Your task to perform on an android device: clear history in the chrome app Image 0: 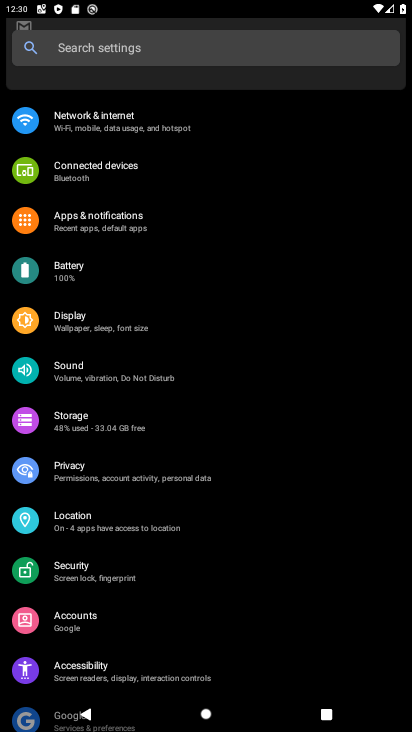
Step 0: press home button
Your task to perform on an android device: clear history in the chrome app Image 1: 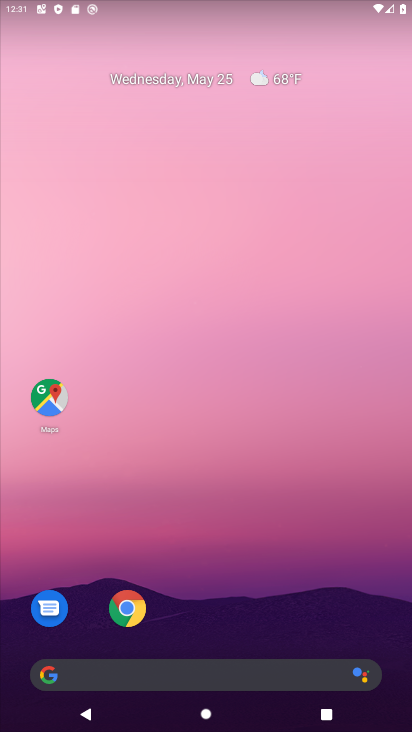
Step 1: click (140, 603)
Your task to perform on an android device: clear history in the chrome app Image 2: 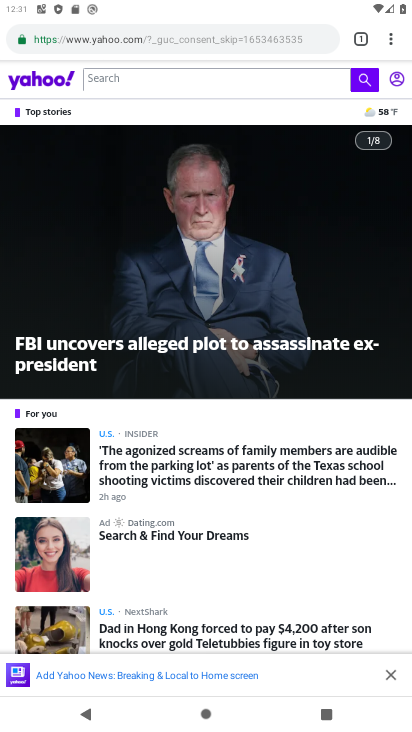
Step 2: click (392, 41)
Your task to perform on an android device: clear history in the chrome app Image 3: 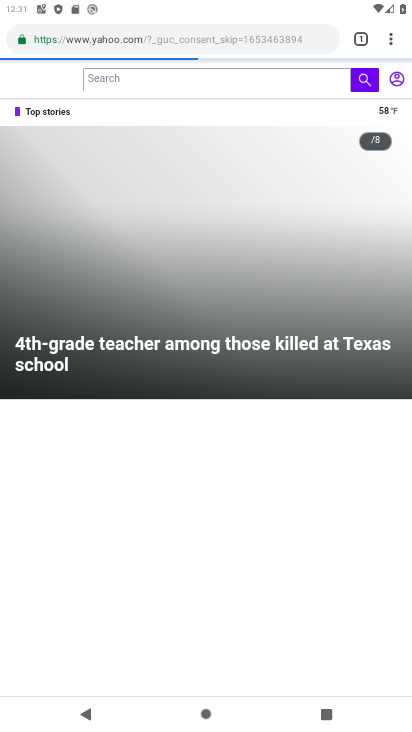
Step 3: click (389, 45)
Your task to perform on an android device: clear history in the chrome app Image 4: 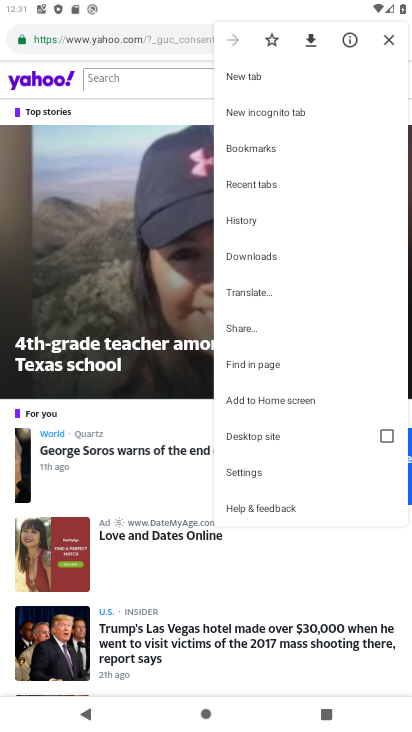
Step 4: click (263, 465)
Your task to perform on an android device: clear history in the chrome app Image 5: 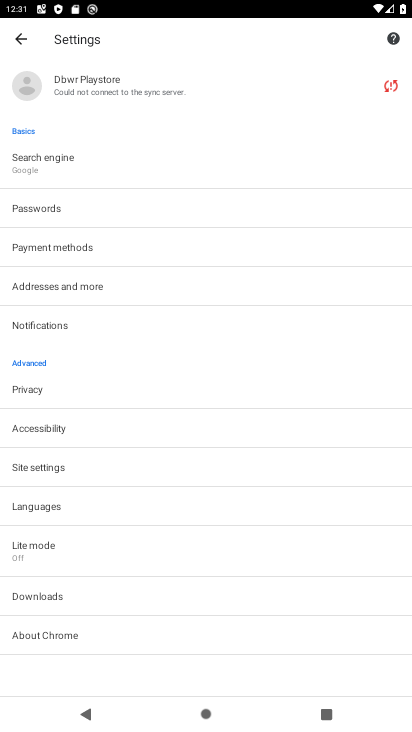
Step 5: click (81, 382)
Your task to perform on an android device: clear history in the chrome app Image 6: 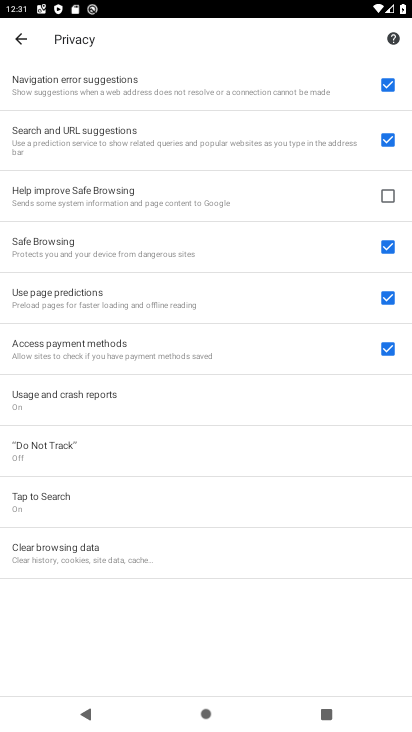
Step 6: click (112, 558)
Your task to perform on an android device: clear history in the chrome app Image 7: 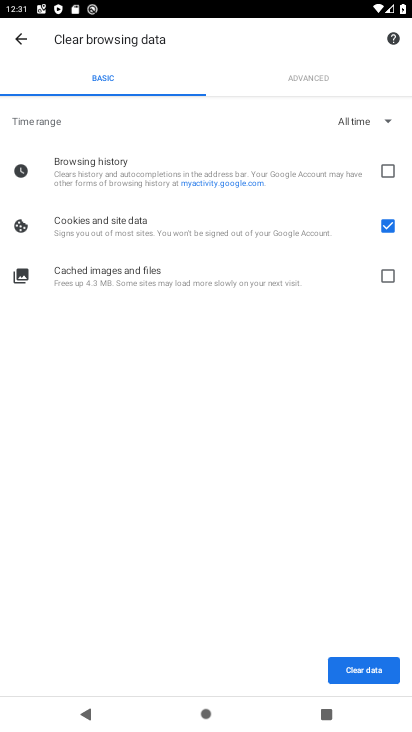
Step 7: click (388, 172)
Your task to perform on an android device: clear history in the chrome app Image 8: 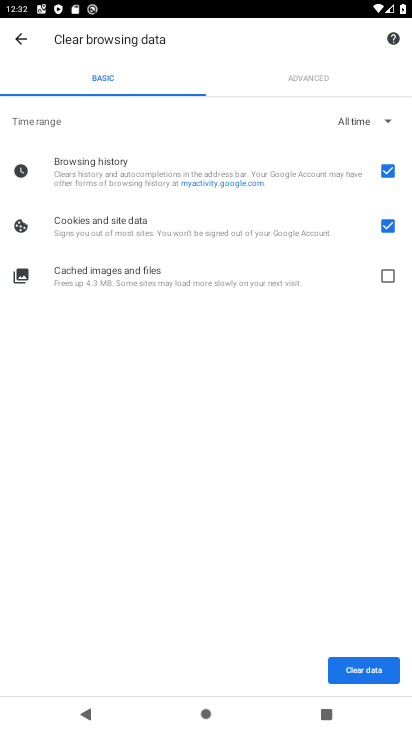
Step 8: click (394, 277)
Your task to perform on an android device: clear history in the chrome app Image 9: 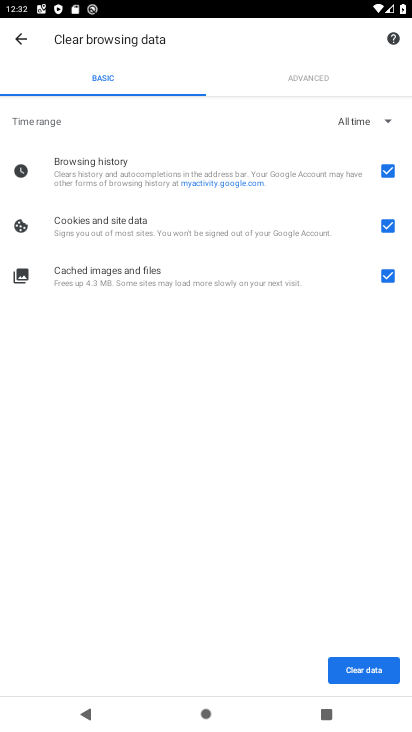
Step 9: click (378, 675)
Your task to perform on an android device: clear history in the chrome app Image 10: 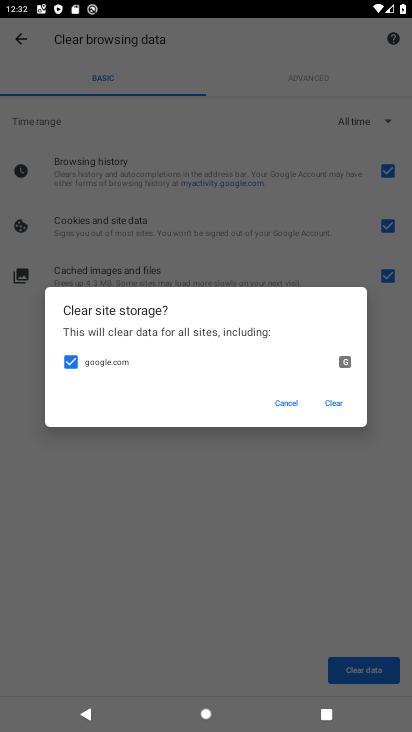
Step 10: click (334, 411)
Your task to perform on an android device: clear history in the chrome app Image 11: 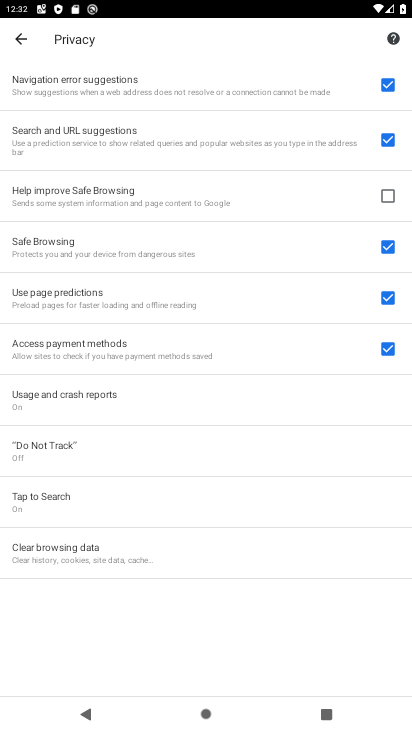
Step 11: task complete